Your task to perform on an android device: Go to Maps Image 0: 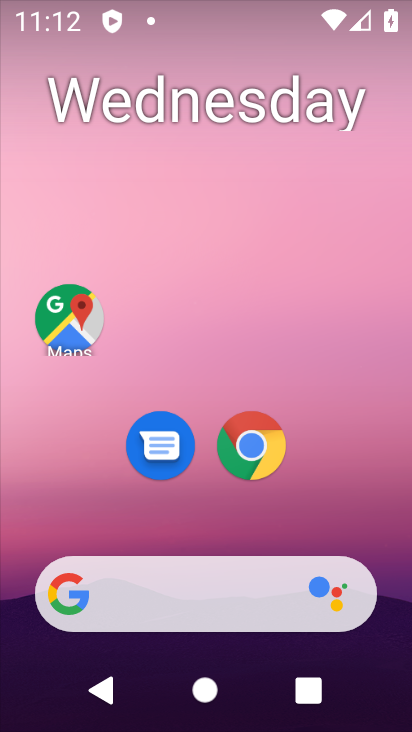
Step 0: click (93, 300)
Your task to perform on an android device: Go to Maps Image 1: 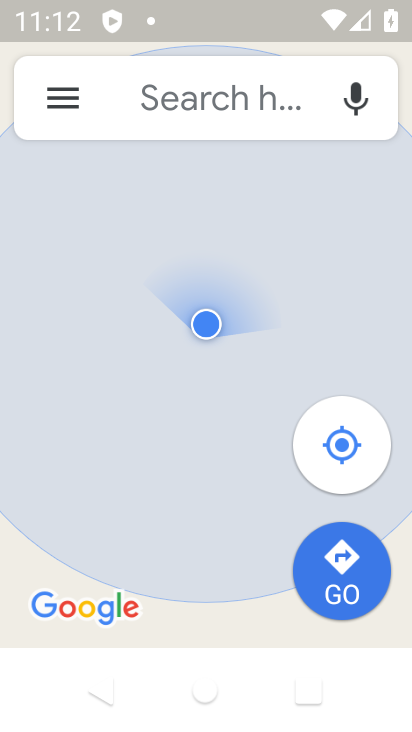
Step 1: task complete